Your task to perform on an android device: turn off improve location accuracy Image 0: 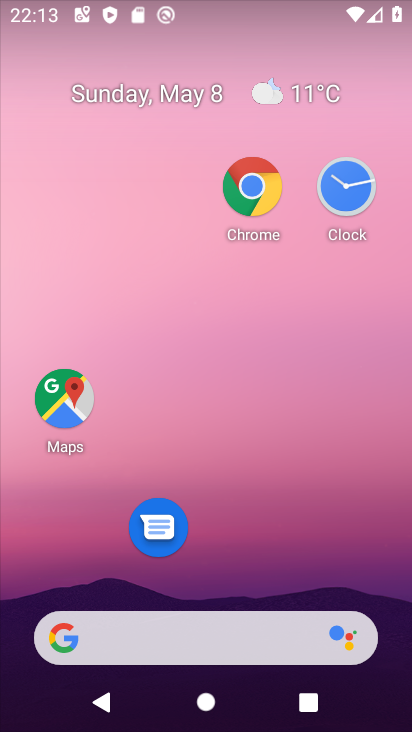
Step 0: drag from (285, 581) to (284, 136)
Your task to perform on an android device: turn off improve location accuracy Image 1: 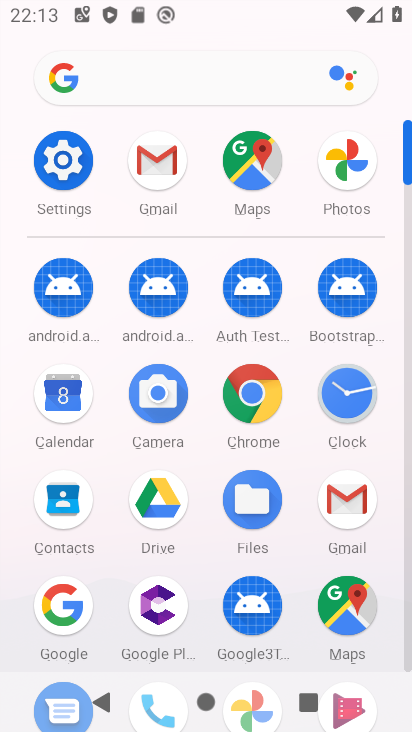
Step 1: drag from (225, 579) to (243, 374)
Your task to perform on an android device: turn off improve location accuracy Image 2: 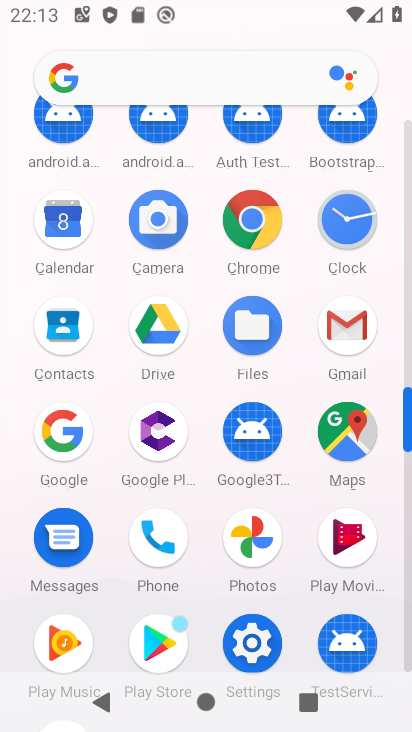
Step 2: drag from (304, 589) to (278, 410)
Your task to perform on an android device: turn off improve location accuracy Image 3: 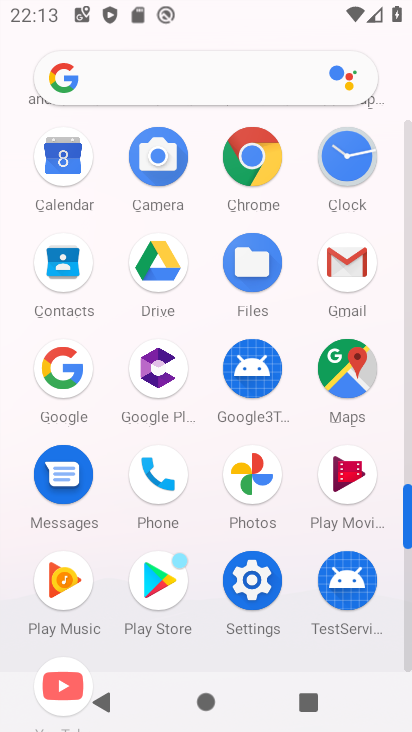
Step 3: click (258, 586)
Your task to perform on an android device: turn off improve location accuracy Image 4: 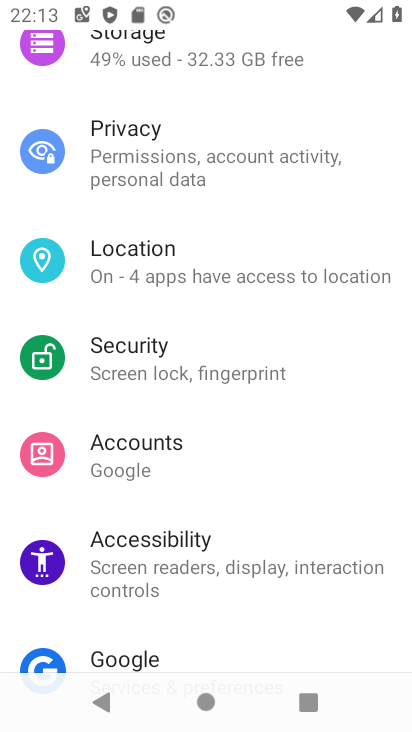
Step 4: drag from (184, 501) to (230, 265)
Your task to perform on an android device: turn off improve location accuracy Image 5: 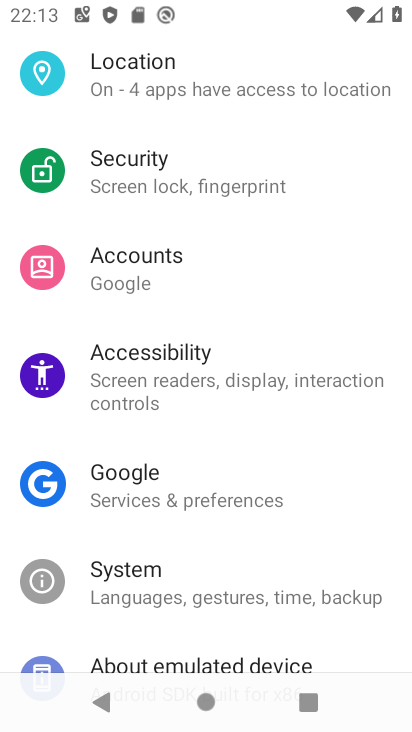
Step 5: drag from (151, 557) to (201, 212)
Your task to perform on an android device: turn off improve location accuracy Image 6: 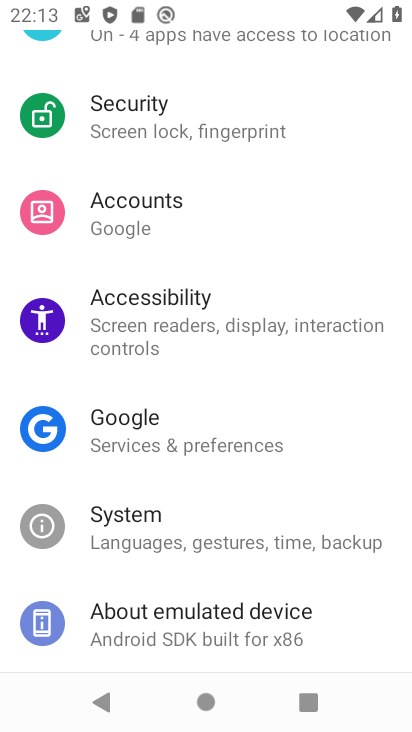
Step 6: drag from (205, 160) to (224, 640)
Your task to perform on an android device: turn off improve location accuracy Image 7: 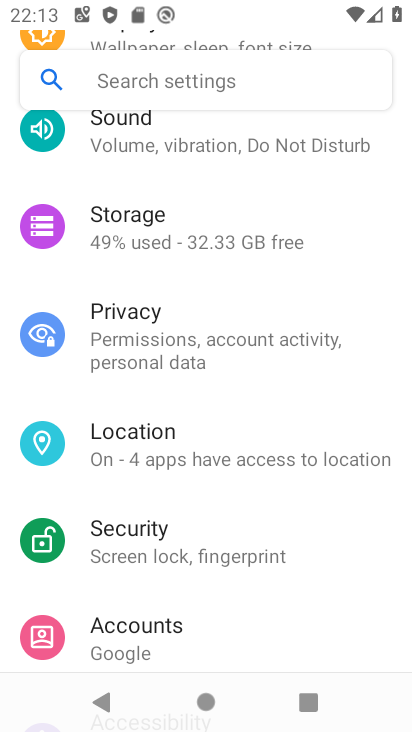
Step 7: click (150, 454)
Your task to perform on an android device: turn off improve location accuracy Image 8: 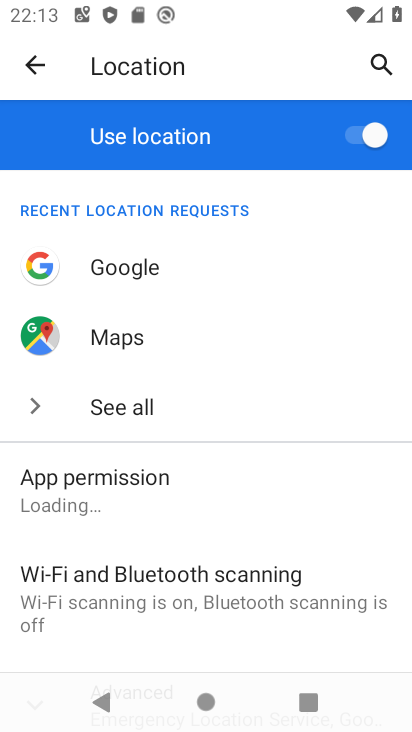
Step 8: drag from (152, 552) to (176, 210)
Your task to perform on an android device: turn off improve location accuracy Image 9: 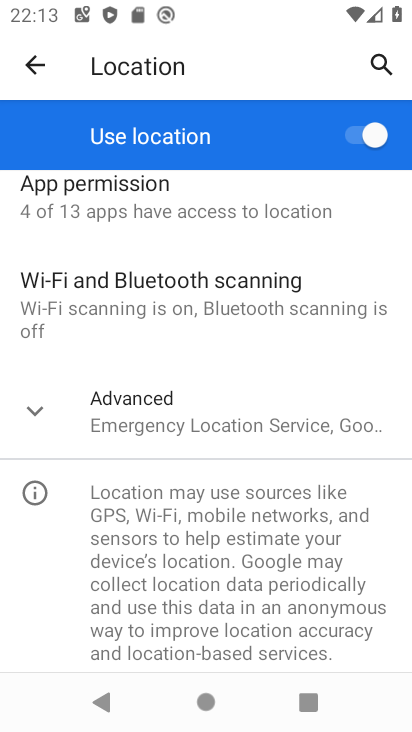
Step 9: drag from (135, 540) to (169, 232)
Your task to perform on an android device: turn off improve location accuracy Image 10: 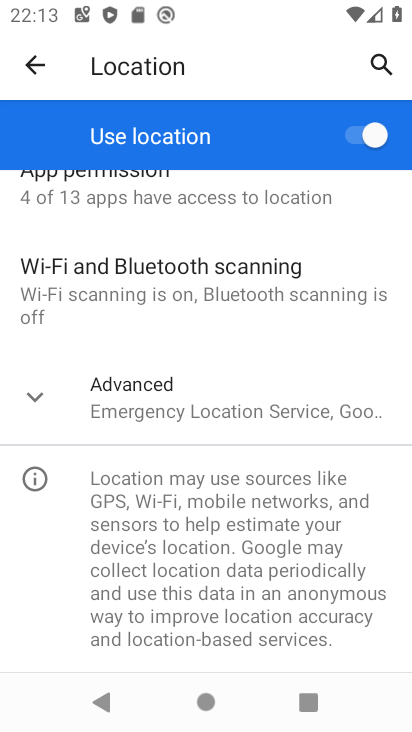
Step 10: drag from (114, 219) to (189, 566)
Your task to perform on an android device: turn off improve location accuracy Image 11: 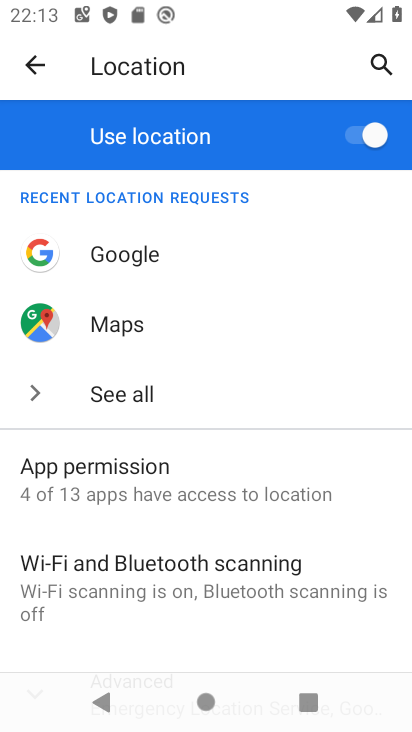
Step 11: drag from (191, 536) to (242, 124)
Your task to perform on an android device: turn off improve location accuracy Image 12: 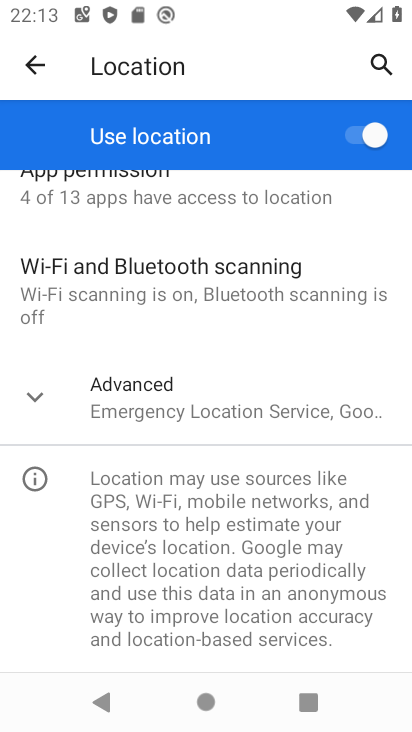
Step 12: click (146, 406)
Your task to perform on an android device: turn off improve location accuracy Image 13: 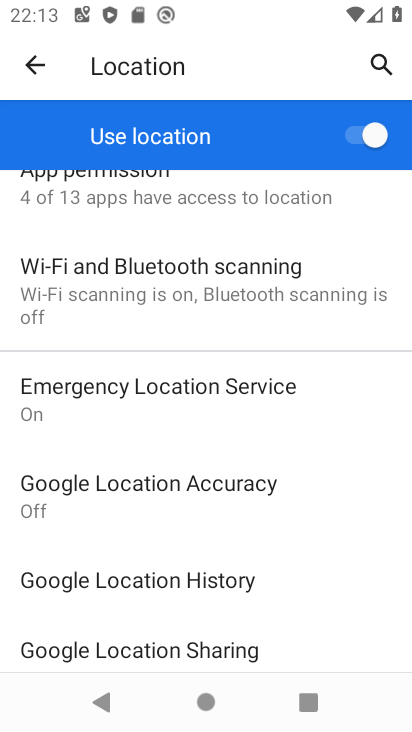
Step 13: drag from (113, 643) to (133, 446)
Your task to perform on an android device: turn off improve location accuracy Image 14: 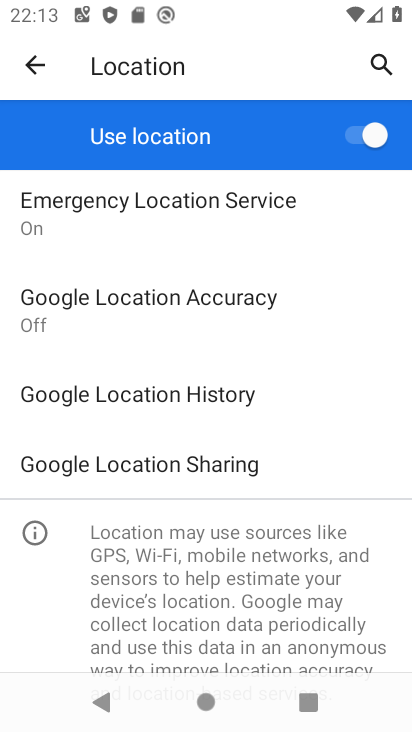
Step 14: click (127, 305)
Your task to perform on an android device: turn off improve location accuracy Image 15: 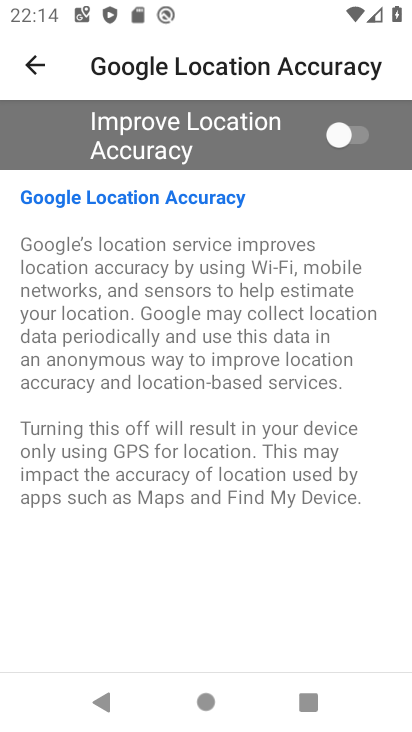
Step 15: task complete